Your task to perform on an android device: change timer sound Image 0: 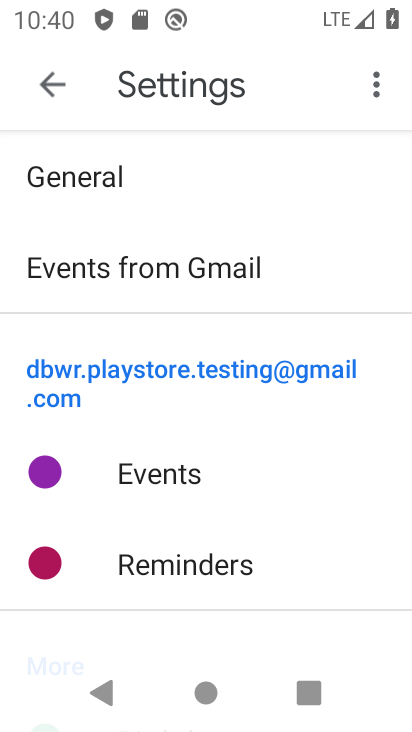
Step 0: press home button
Your task to perform on an android device: change timer sound Image 1: 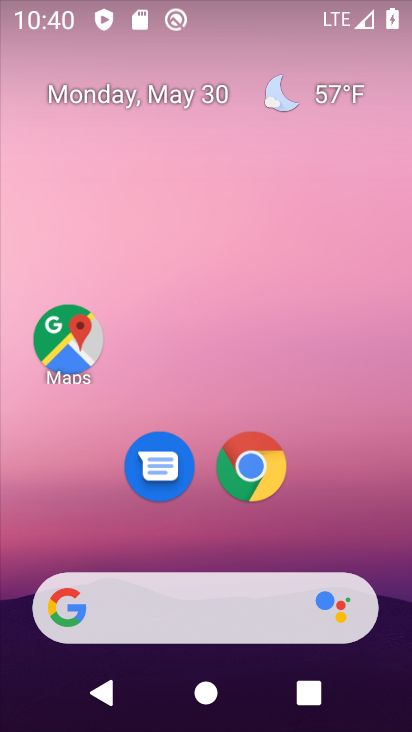
Step 1: drag from (379, 565) to (338, 197)
Your task to perform on an android device: change timer sound Image 2: 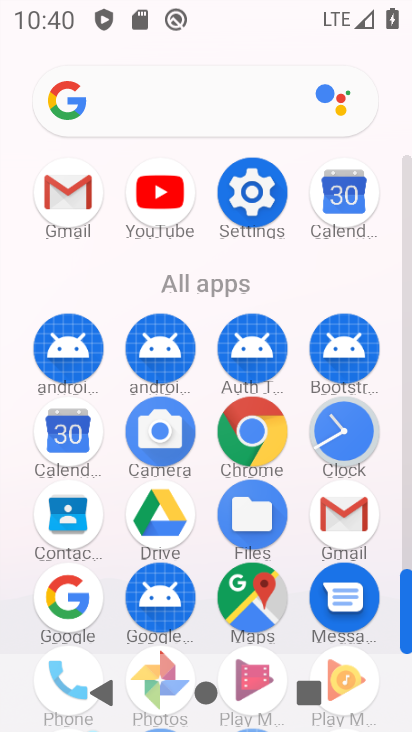
Step 2: click (342, 434)
Your task to perform on an android device: change timer sound Image 3: 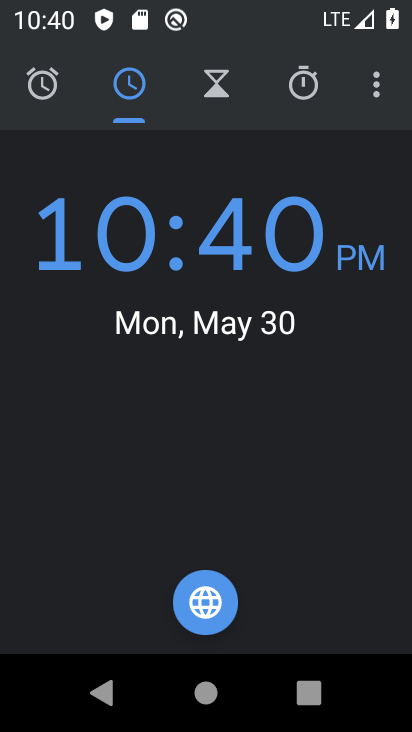
Step 3: click (380, 79)
Your task to perform on an android device: change timer sound Image 4: 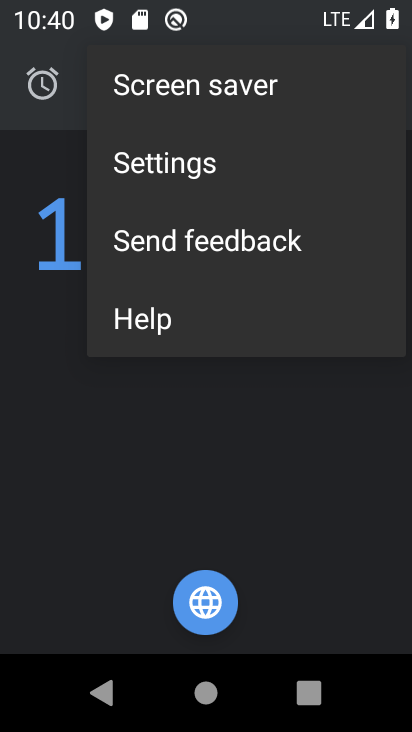
Step 4: click (165, 153)
Your task to perform on an android device: change timer sound Image 5: 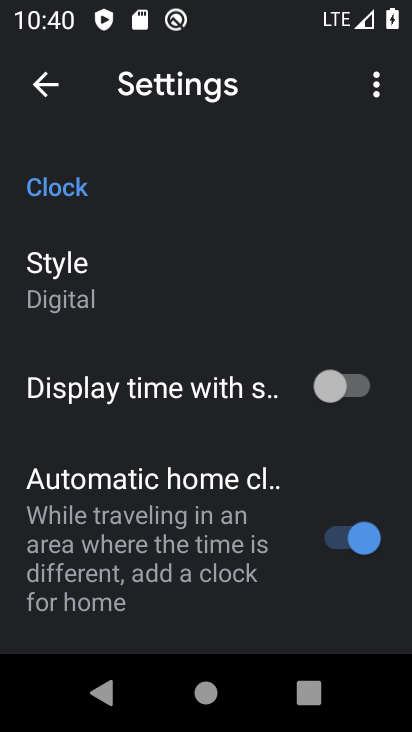
Step 5: drag from (223, 561) to (205, 146)
Your task to perform on an android device: change timer sound Image 6: 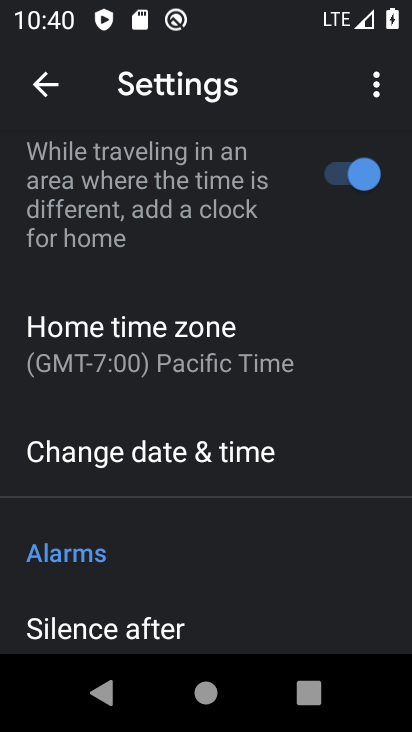
Step 6: drag from (335, 564) to (335, 142)
Your task to perform on an android device: change timer sound Image 7: 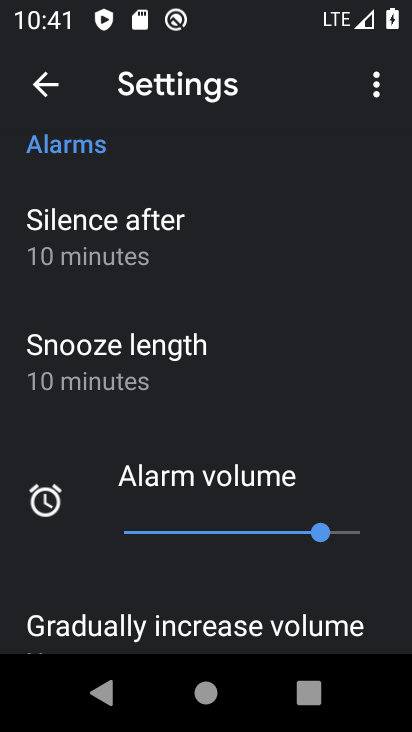
Step 7: drag from (281, 601) to (312, 23)
Your task to perform on an android device: change timer sound Image 8: 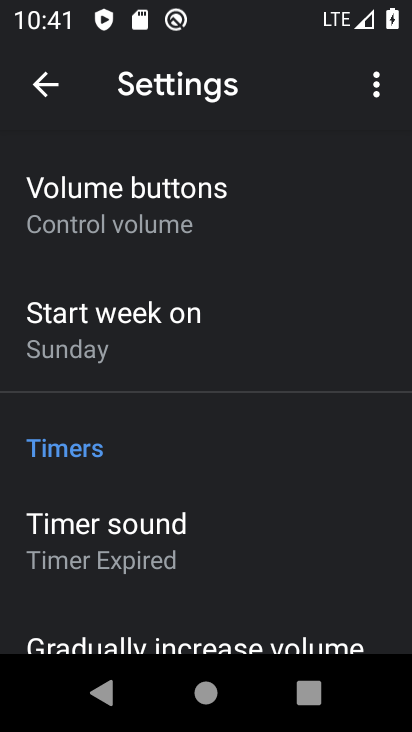
Step 8: click (171, 543)
Your task to perform on an android device: change timer sound Image 9: 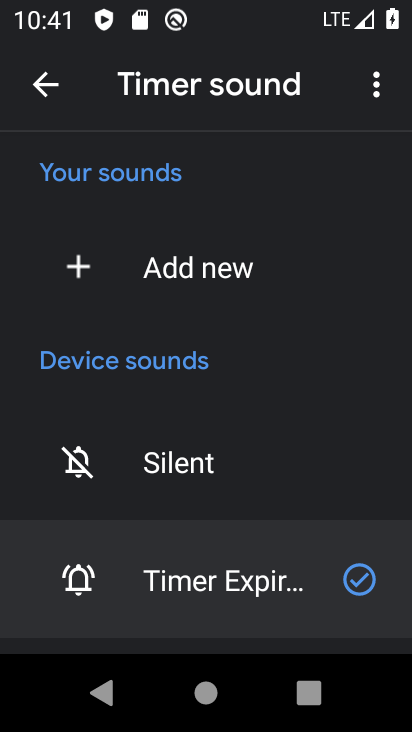
Step 9: drag from (312, 473) to (311, 274)
Your task to perform on an android device: change timer sound Image 10: 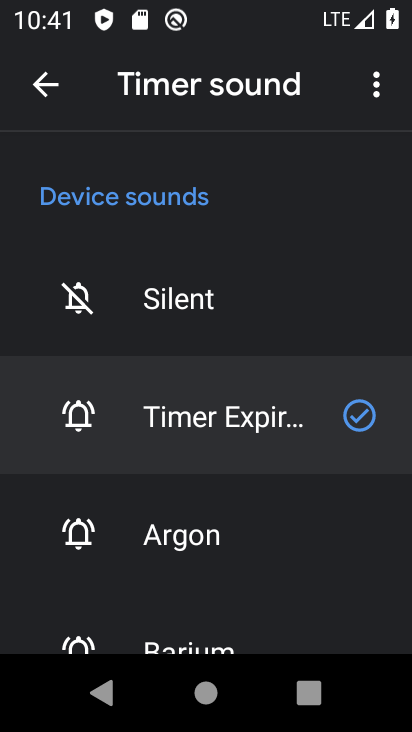
Step 10: click (229, 537)
Your task to perform on an android device: change timer sound Image 11: 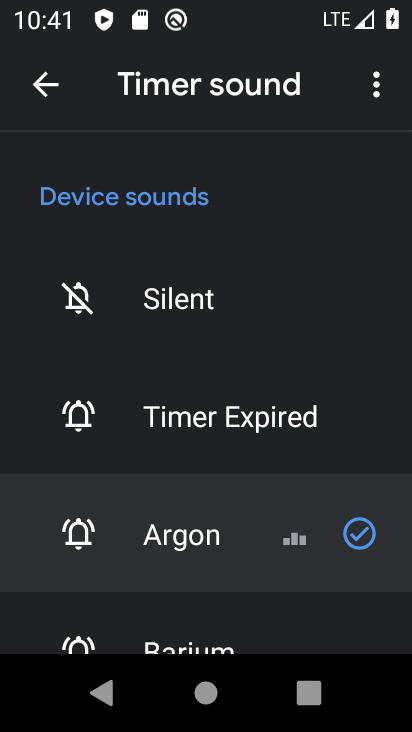
Step 11: click (352, 538)
Your task to perform on an android device: change timer sound Image 12: 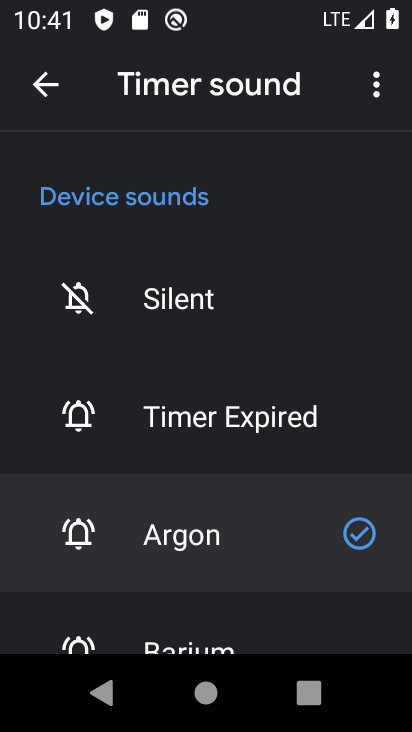
Step 12: task complete